Your task to perform on an android device: What's the weather today? Image 0: 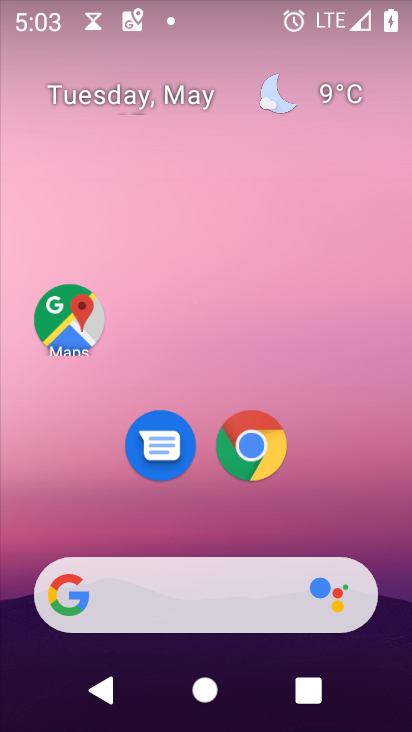
Step 0: drag from (306, 588) to (408, 358)
Your task to perform on an android device: What's the weather today? Image 1: 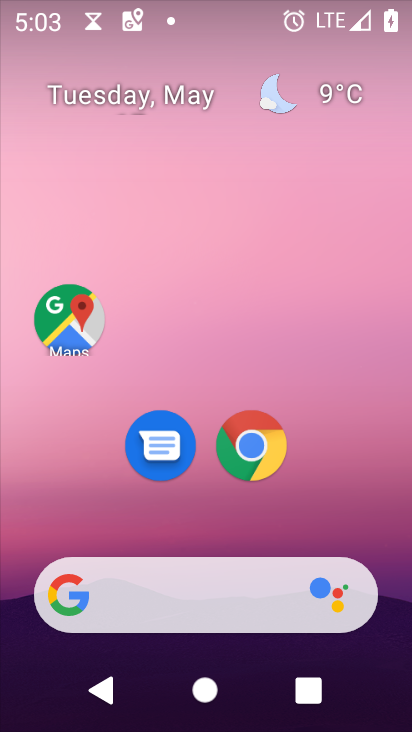
Step 1: drag from (273, 517) to (290, 14)
Your task to perform on an android device: What's the weather today? Image 2: 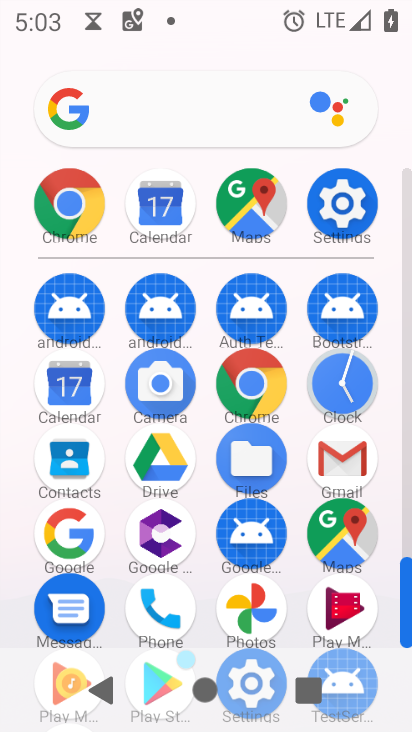
Step 2: click (60, 386)
Your task to perform on an android device: What's the weather today? Image 3: 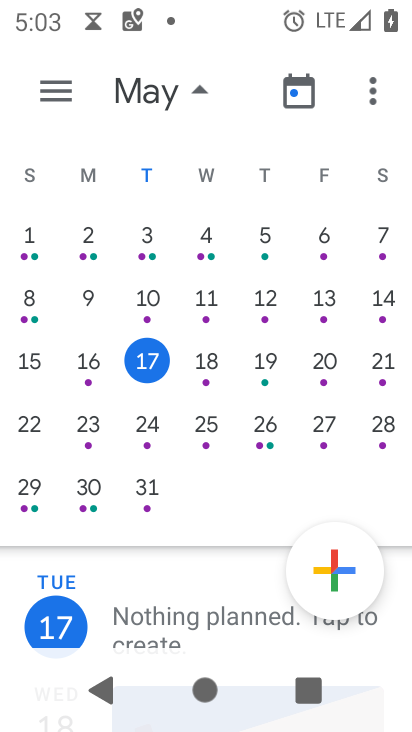
Step 3: press home button
Your task to perform on an android device: What's the weather today? Image 4: 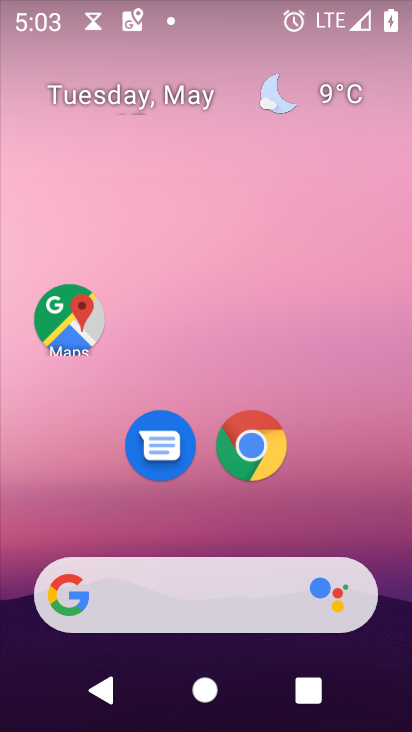
Step 4: click (335, 86)
Your task to perform on an android device: What's the weather today? Image 5: 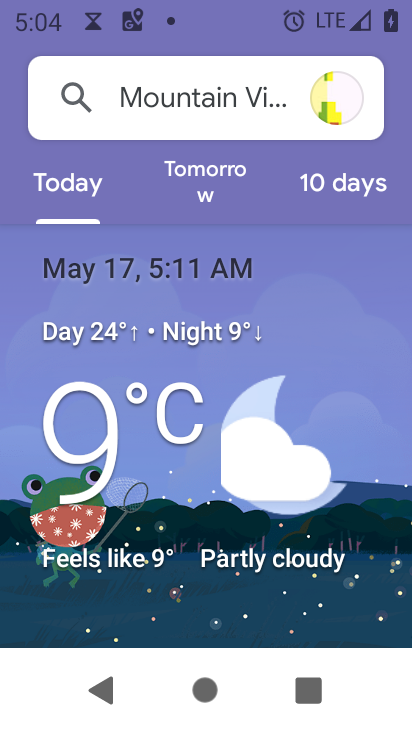
Step 5: task complete